Your task to perform on an android device: set default search engine in the chrome app Image 0: 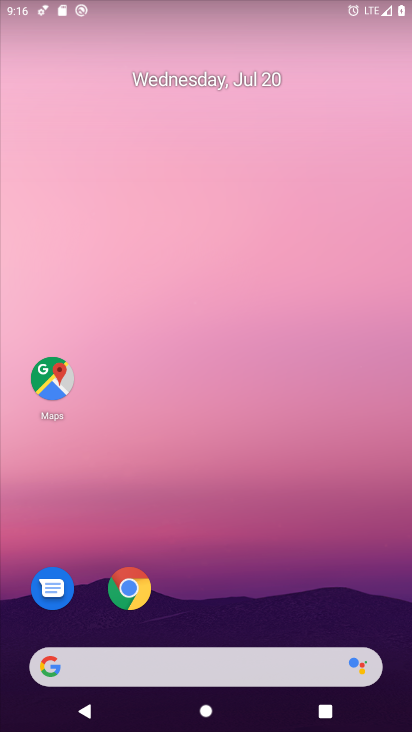
Step 0: press home button
Your task to perform on an android device: set default search engine in the chrome app Image 1: 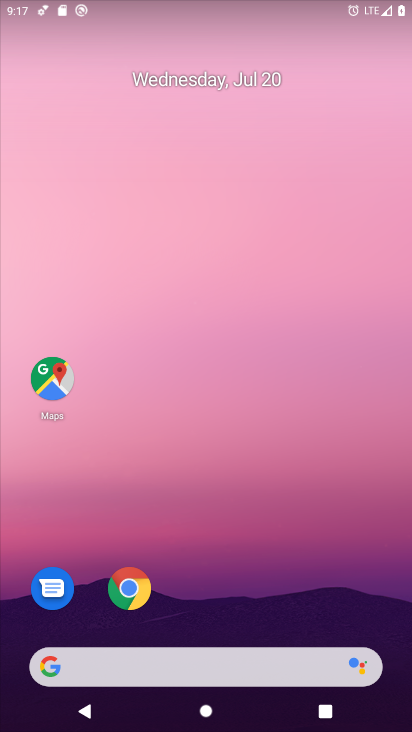
Step 1: click (132, 585)
Your task to perform on an android device: set default search engine in the chrome app Image 2: 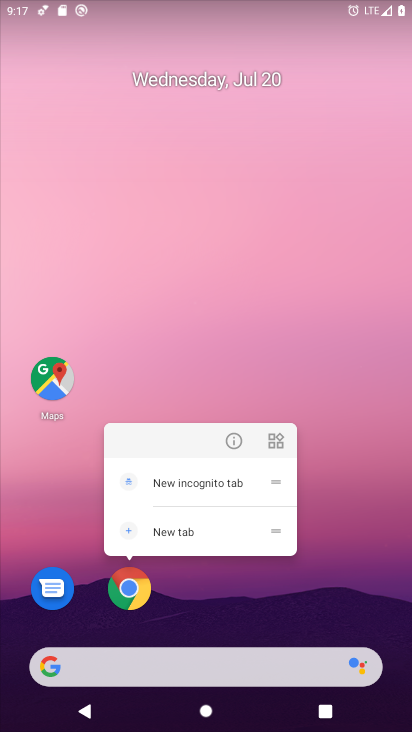
Step 2: click (136, 582)
Your task to perform on an android device: set default search engine in the chrome app Image 3: 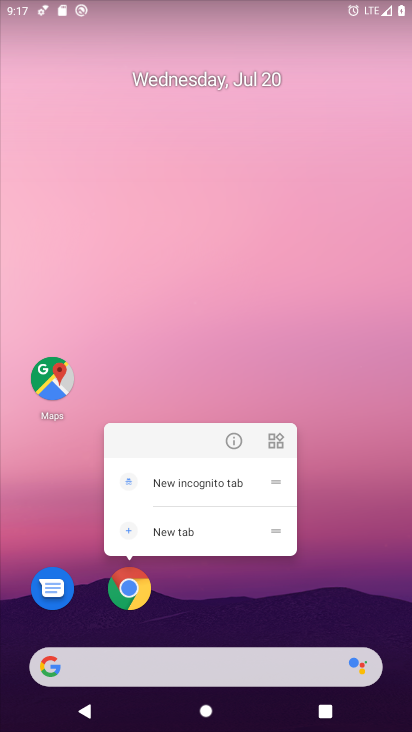
Step 3: click (122, 589)
Your task to perform on an android device: set default search engine in the chrome app Image 4: 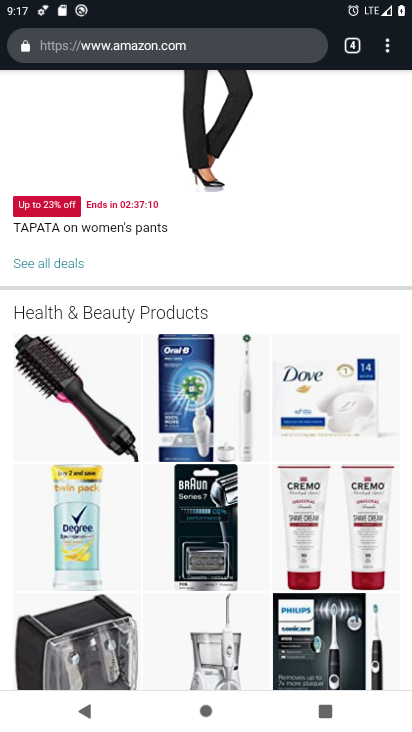
Step 4: click (391, 40)
Your task to perform on an android device: set default search engine in the chrome app Image 5: 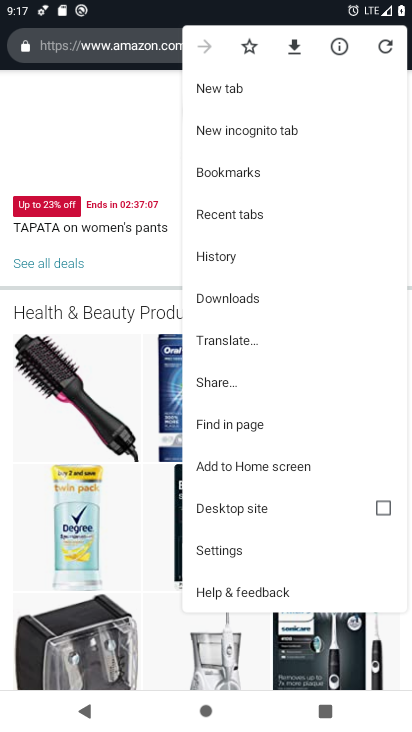
Step 5: click (223, 551)
Your task to perform on an android device: set default search engine in the chrome app Image 6: 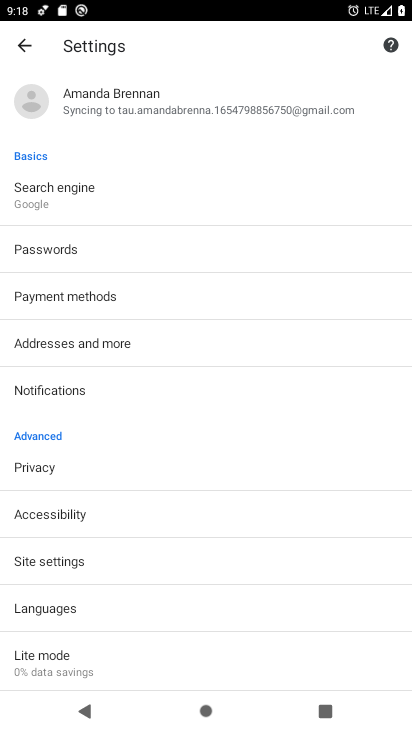
Step 6: click (70, 191)
Your task to perform on an android device: set default search engine in the chrome app Image 7: 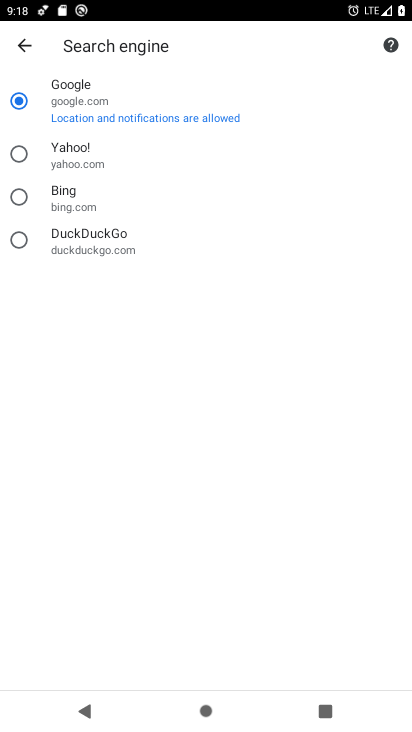
Step 7: click (20, 152)
Your task to perform on an android device: set default search engine in the chrome app Image 8: 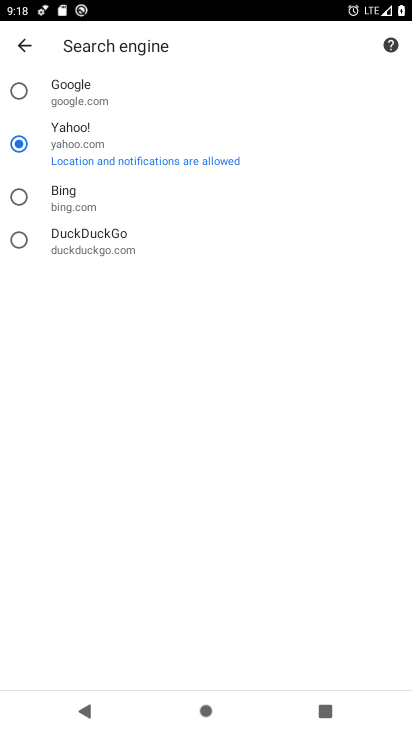
Step 8: task complete